Your task to perform on an android device: open device folders in google photos Image 0: 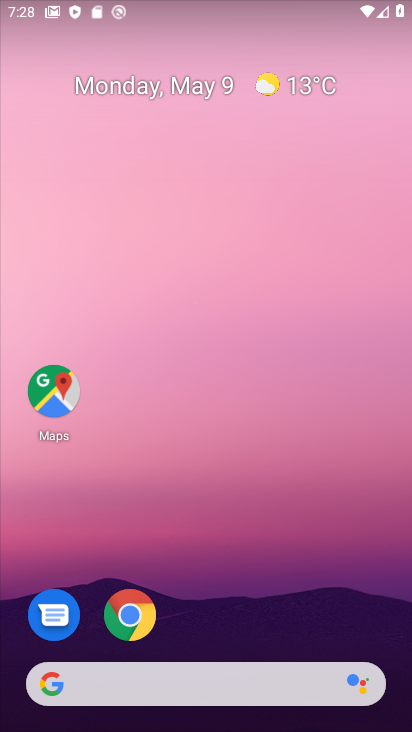
Step 0: drag from (280, 263) to (275, 40)
Your task to perform on an android device: open device folders in google photos Image 1: 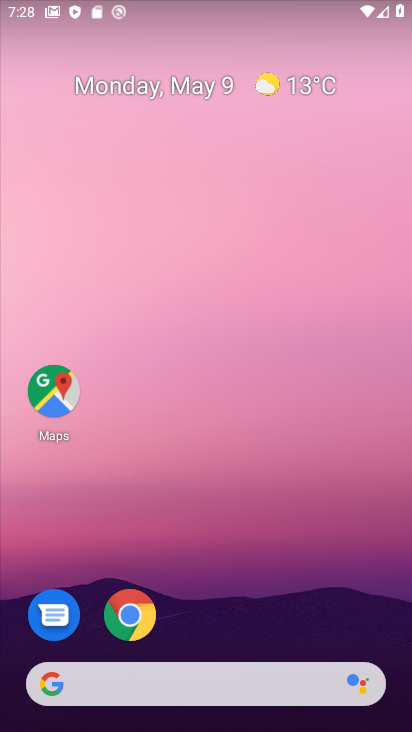
Step 1: drag from (274, 615) to (253, 80)
Your task to perform on an android device: open device folders in google photos Image 2: 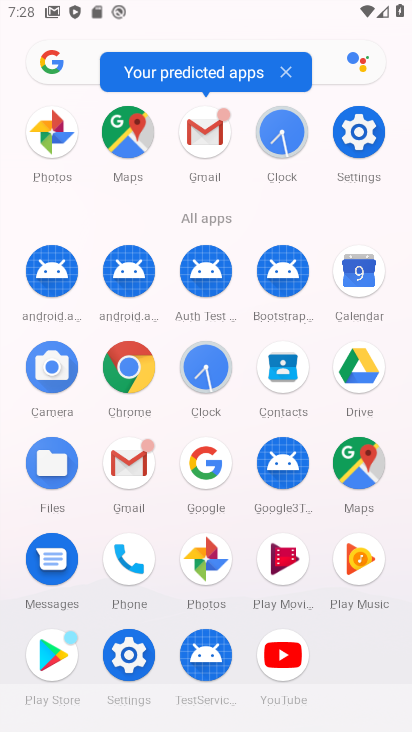
Step 2: click (53, 149)
Your task to perform on an android device: open device folders in google photos Image 3: 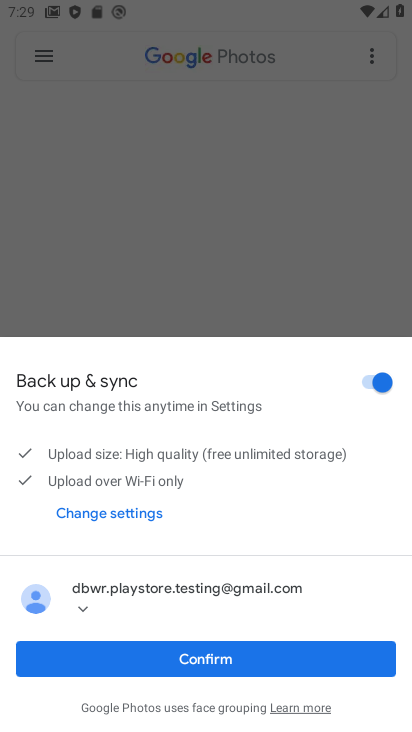
Step 3: click (145, 670)
Your task to perform on an android device: open device folders in google photos Image 4: 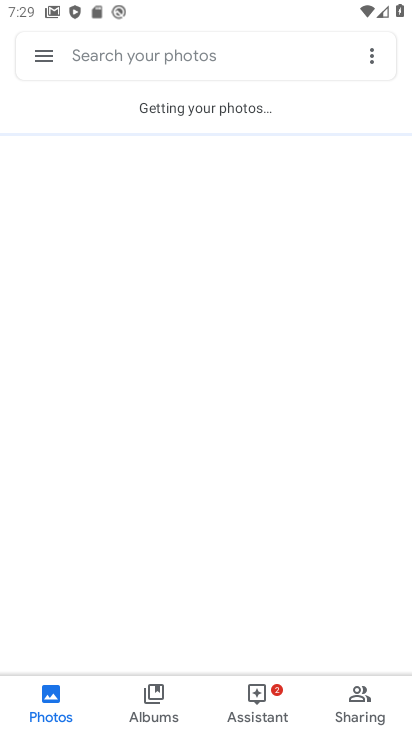
Step 4: click (43, 61)
Your task to perform on an android device: open device folders in google photos Image 5: 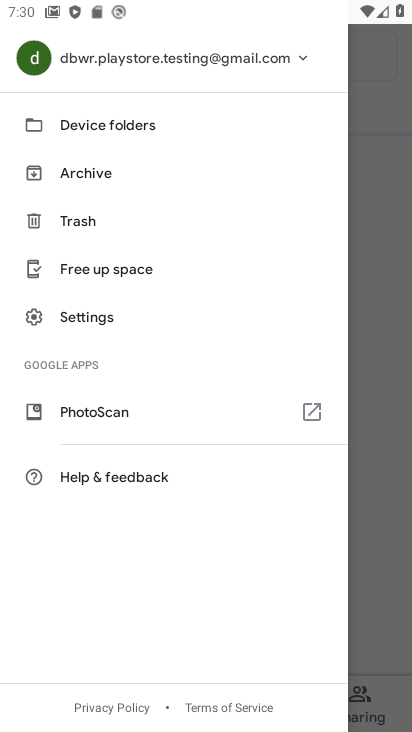
Step 5: click (136, 127)
Your task to perform on an android device: open device folders in google photos Image 6: 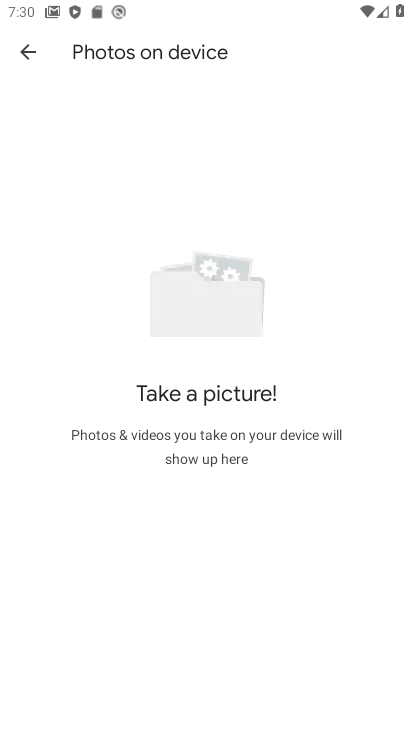
Step 6: task complete